Your task to perform on an android device: change notifications settings Image 0: 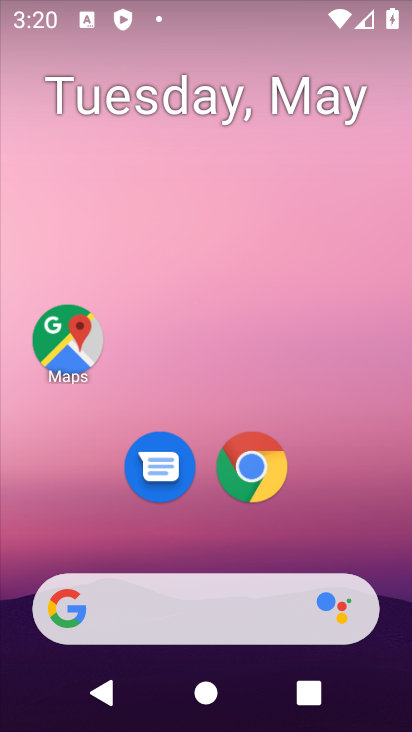
Step 0: drag from (366, 537) to (274, 186)
Your task to perform on an android device: change notifications settings Image 1: 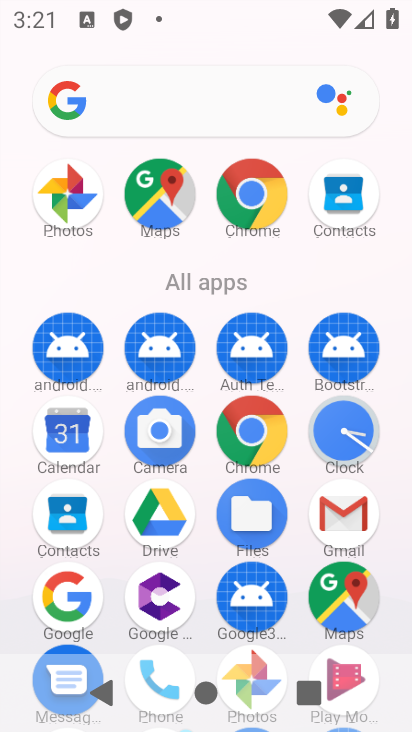
Step 1: task complete